Your task to perform on an android device: check google app version Image 0: 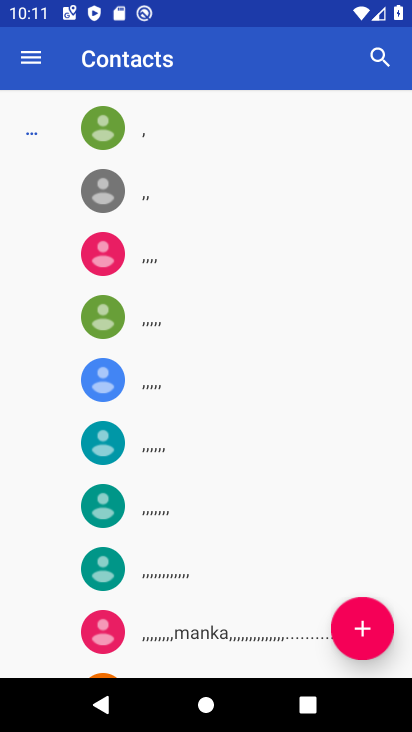
Step 0: press home button
Your task to perform on an android device: check google app version Image 1: 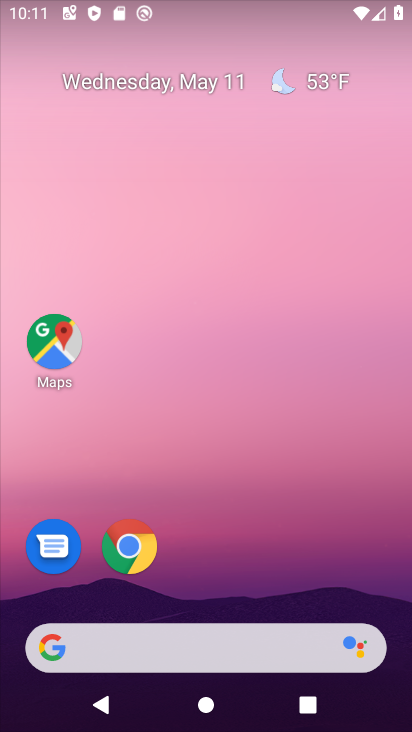
Step 1: drag from (400, 616) to (296, 112)
Your task to perform on an android device: check google app version Image 2: 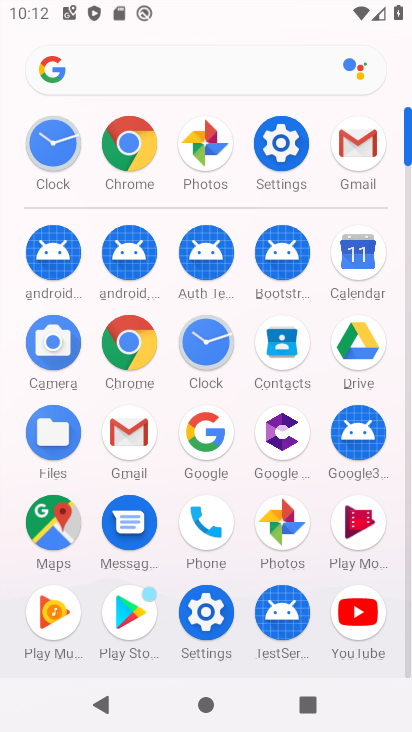
Step 2: click (191, 446)
Your task to perform on an android device: check google app version Image 3: 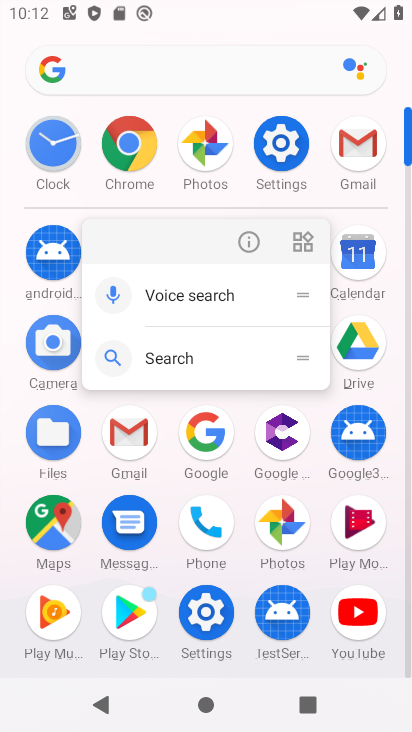
Step 3: click (254, 236)
Your task to perform on an android device: check google app version Image 4: 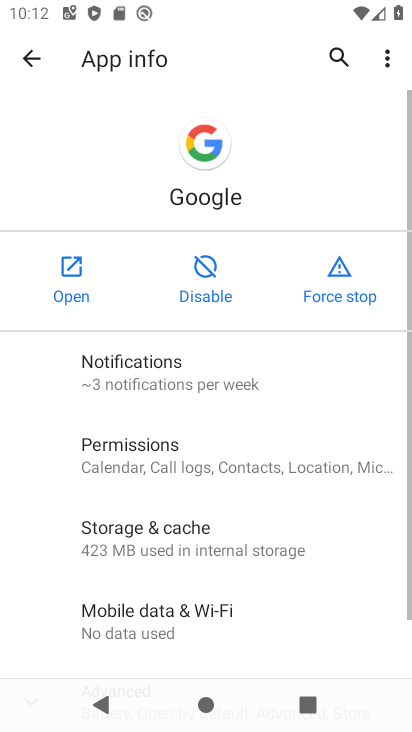
Step 4: drag from (241, 610) to (196, 22)
Your task to perform on an android device: check google app version Image 5: 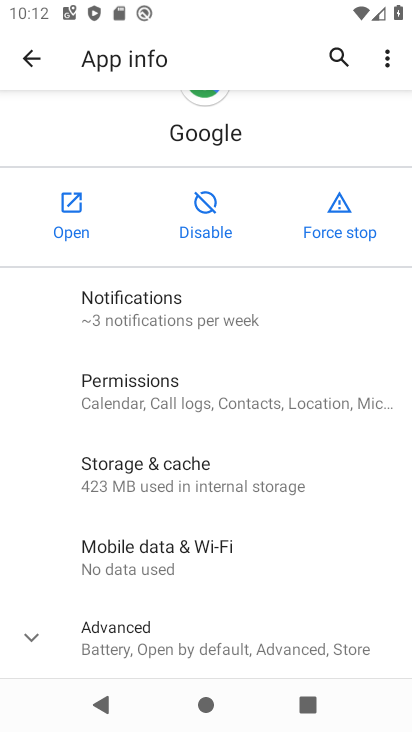
Step 5: click (124, 622)
Your task to perform on an android device: check google app version Image 6: 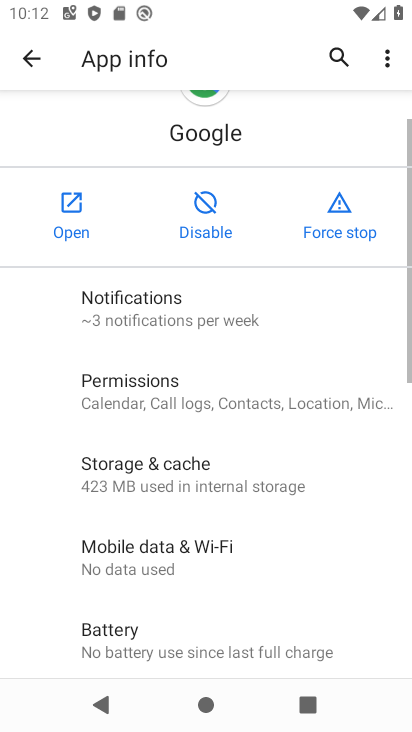
Step 6: task complete